Your task to perform on an android device: See recent photos Image 0: 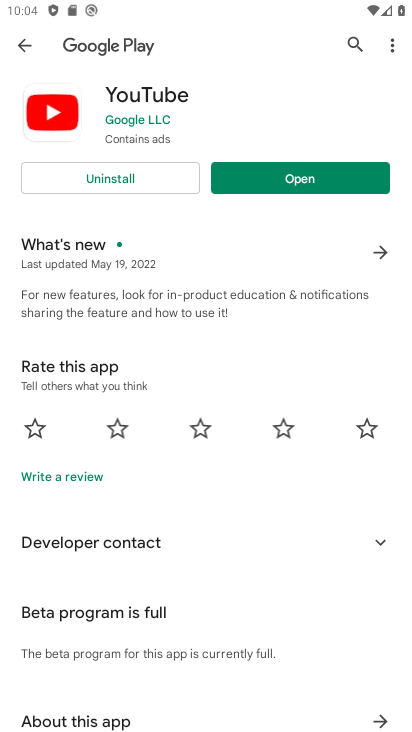
Step 0: press home button
Your task to perform on an android device: See recent photos Image 1: 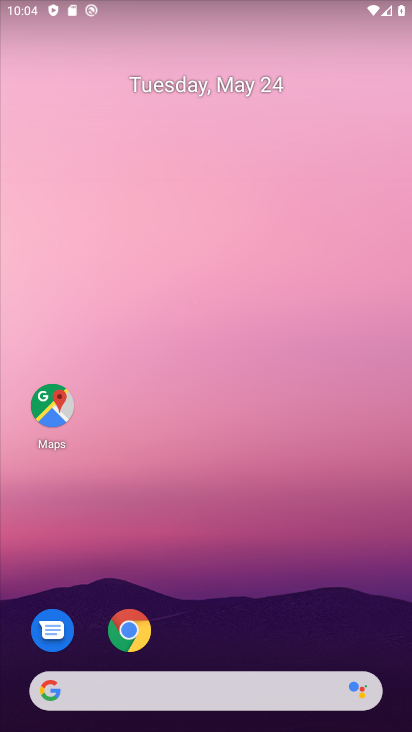
Step 1: drag from (209, 646) to (224, 19)
Your task to perform on an android device: See recent photos Image 2: 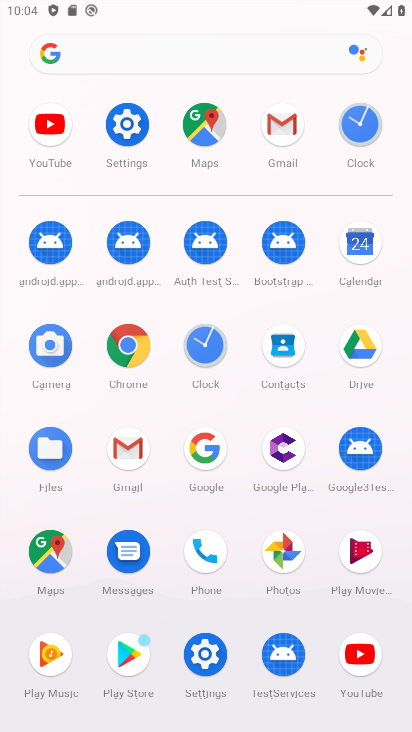
Step 2: click (283, 543)
Your task to perform on an android device: See recent photos Image 3: 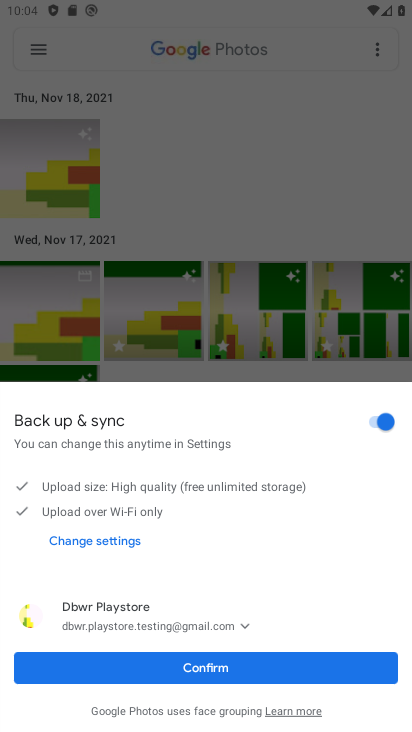
Step 3: click (203, 669)
Your task to perform on an android device: See recent photos Image 4: 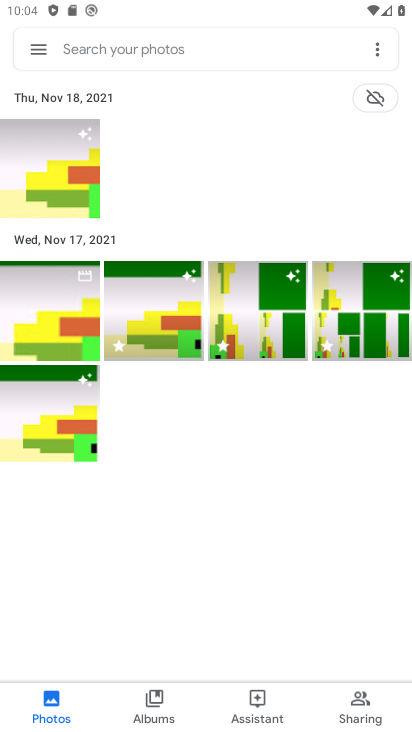
Step 4: task complete